Your task to perform on an android device: star an email in the gmail app Image 0: 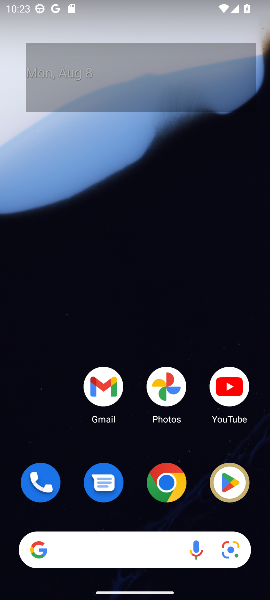
Step 0: click (103, 395)
Your task to perform on an android device: star an email in the gmail app Image 1: 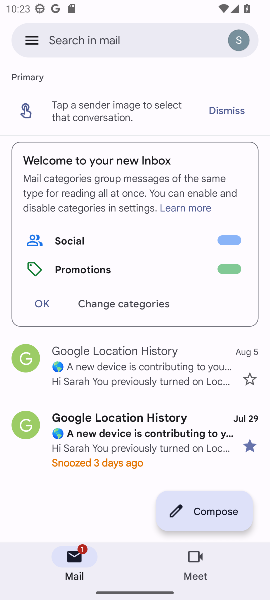
Step 1: click (250, 371)
Your task to perform on an android device: star an email in the gmail app Image 2: 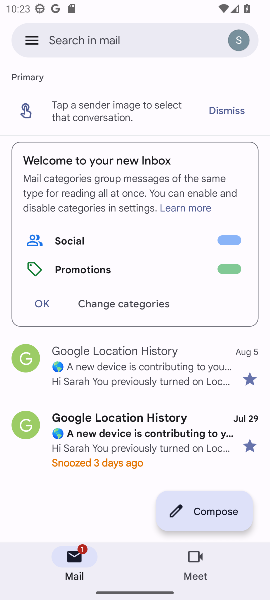
Step 2: task complete